Your task to perform on an android device: turn on wifi Image 0: 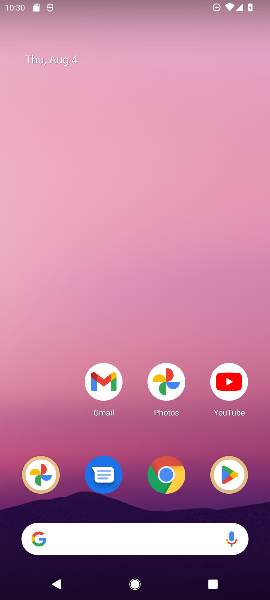
Step 0: drag from (139, 506) to (149, 107)
Your task to perform on an android device: turn on wifi Image 1: 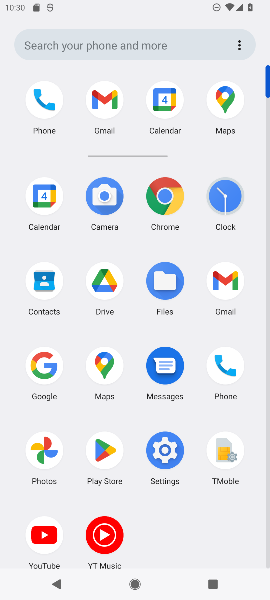
Step 1: click (157, 454)
Your task to perform on an android device: turn on wifi Image 2: 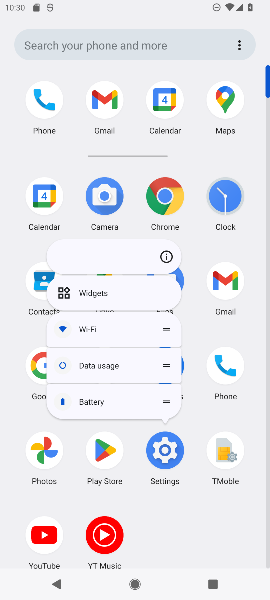
Step 2: click (163, 248)
Your task to perform on an android device: turn on wifi Image 3: 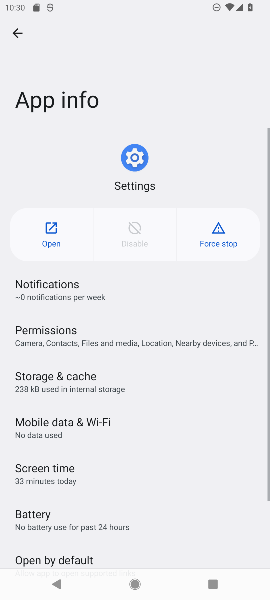
Step 3: click (45, 228)
Your task to perform on an android device: turn on wifi Image 4: 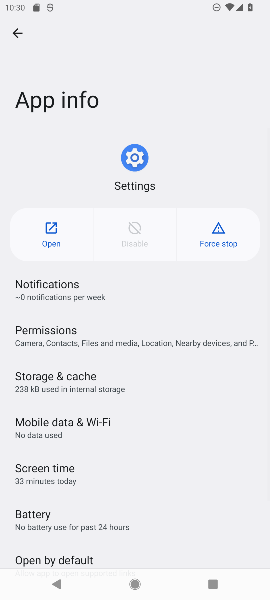
Step 4: click (45, 228)
Your task to perform on an android device: turn on wifi Image 5: 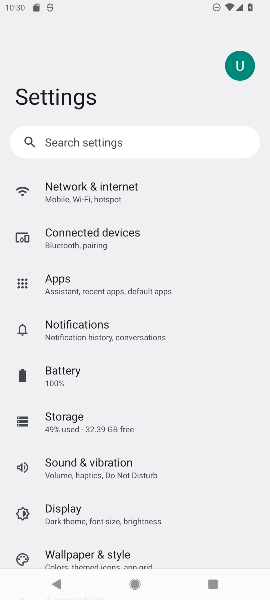
Step 5: click (93, 181)
Your task to perform on an android device: turn on wifi Image 6: 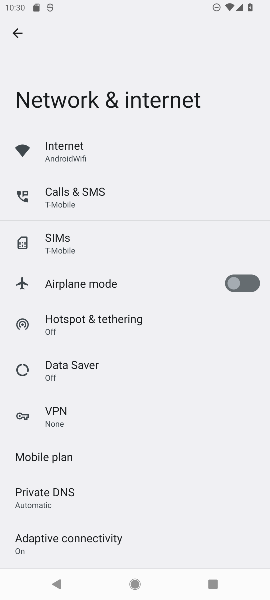
Step 6: click (101, 140)
Your task to perform on an android device: turn on wifi Image 7: 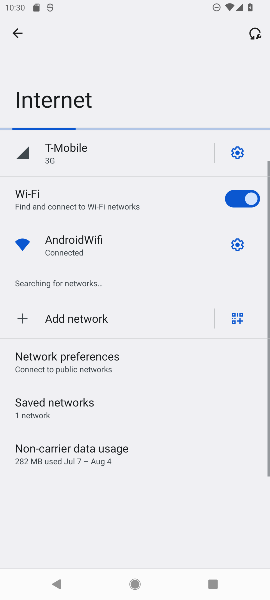
Step 7: task complete